Your task to perform on an android device: toggle location history Image 0: 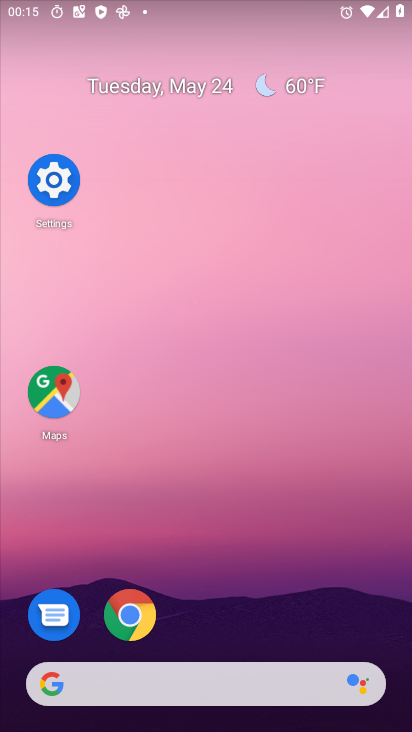
Step 0: click (49, 162)
Your task to perform on an android device: toggle location history Image 1: 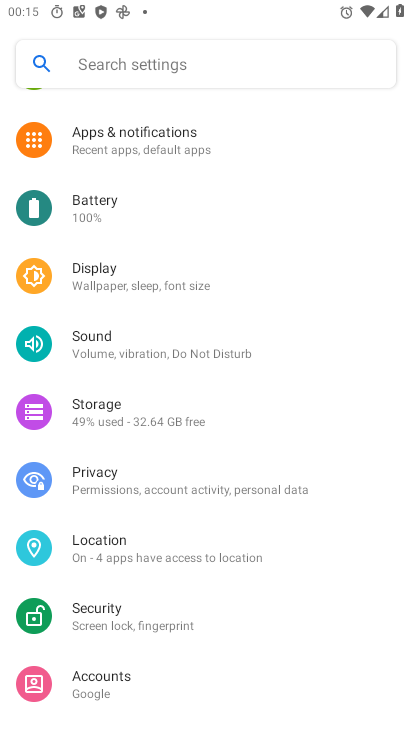
Step 1: click (141, 538)
Your task to perform on an android device: toggle location history Image 2: 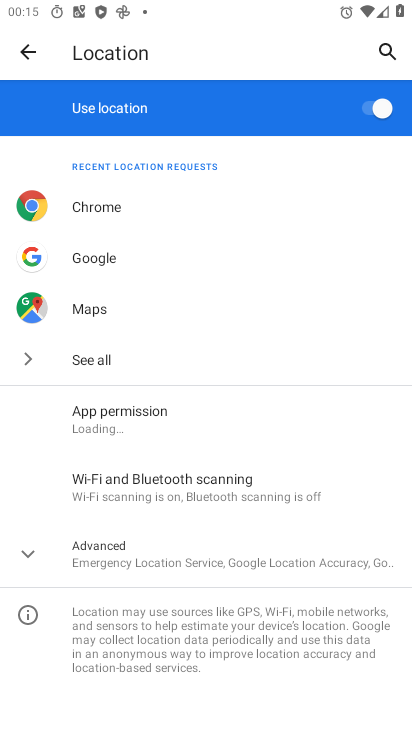
Step 2: click (134, 536)
Your task to perform on an android device: toggle location history Image 3: 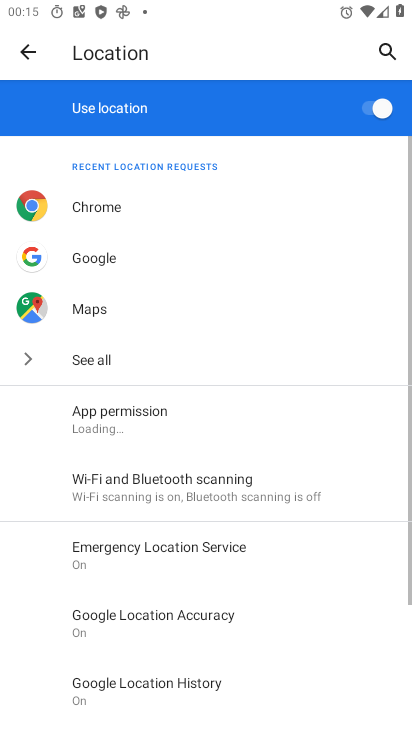
Step 3: drag from (266, 511) to (247, 116)
Your task to perform on an android device: toggle location history Image 4: 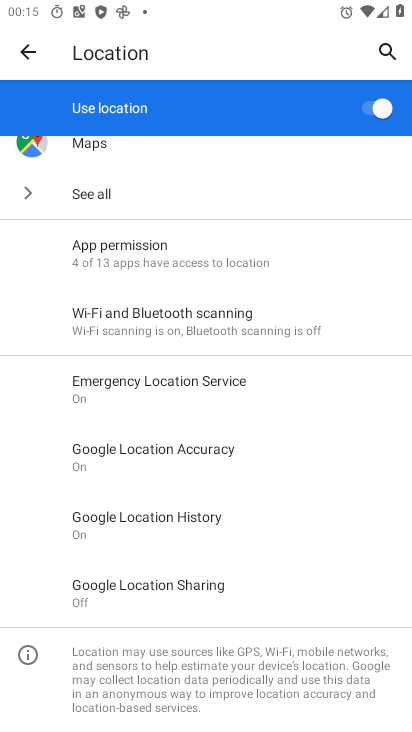
Step 4: click (166, 505)
Your task to perform on an android device: toggle location history Image 5: 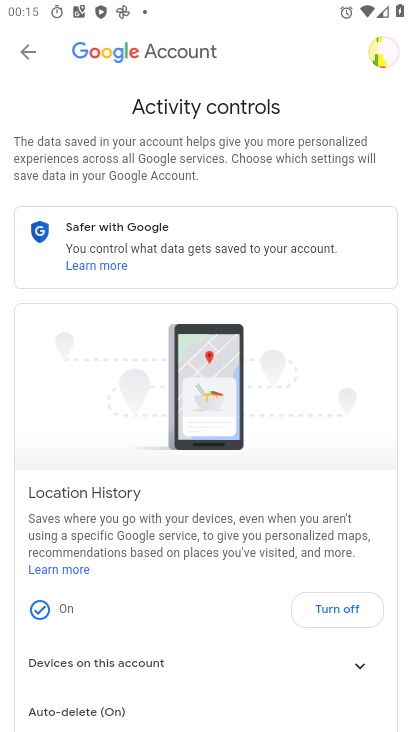
Step 5: drag from (162, 626) to (170, 306)
Your task to perform on an android device: toggle location history Image 6: 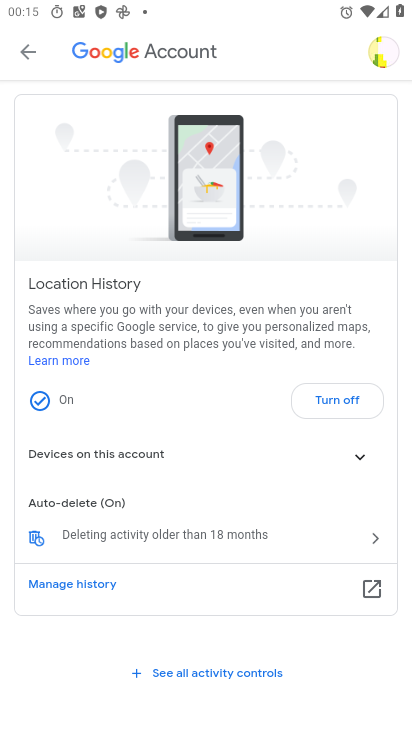
Step 6: click (335, 412)
Your task to perform on an android device: toggle location history Image 7: 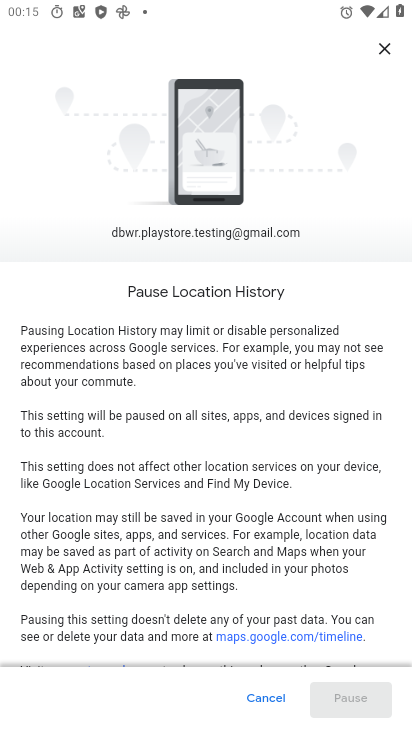
Step 7: drag from (316, 568) to (313, 110)
Your task to perform on an android device: toggle location history Image 8: 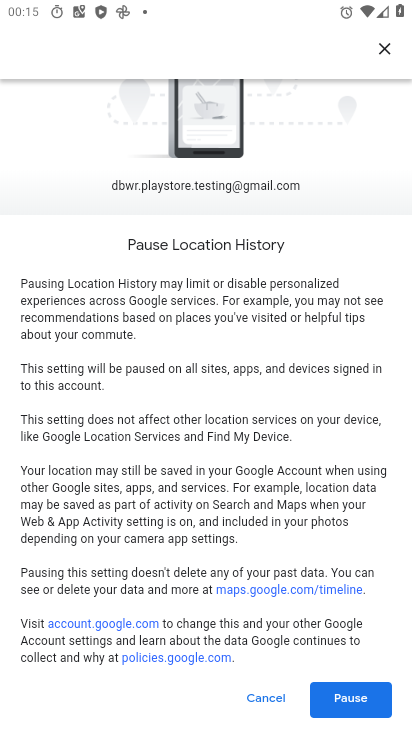
Step 8: click (341, 706)
Your task to perform on an android device: toggle location history Image 9: 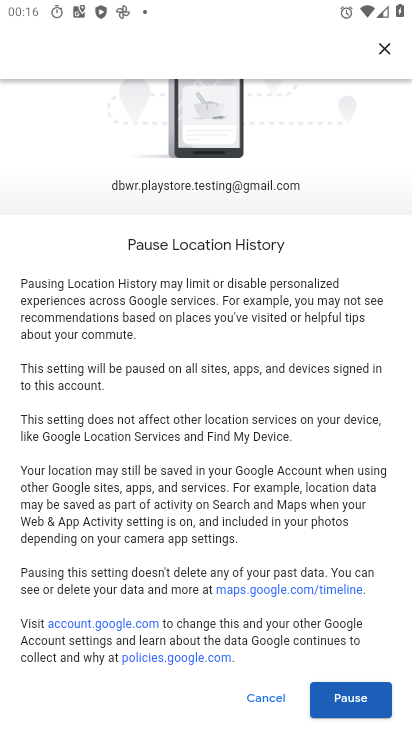
Step 9: click (355, 704)
Your task to perform on an android device: toggle location history Image 10: 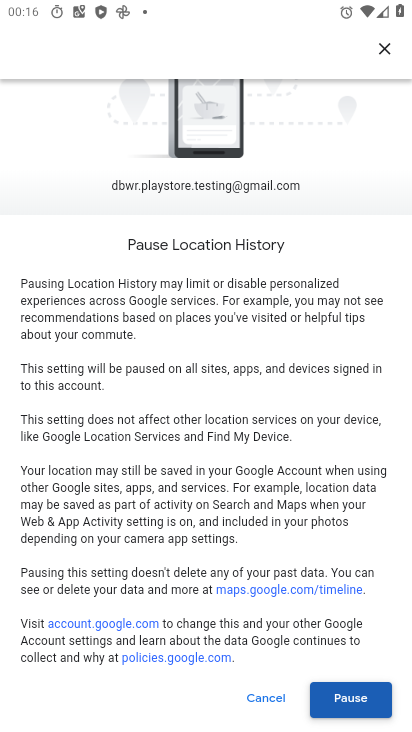
Step 10: drag from (336, 555) to (368, 283)
Your task to perform on an android device: toggle location history Image 11: 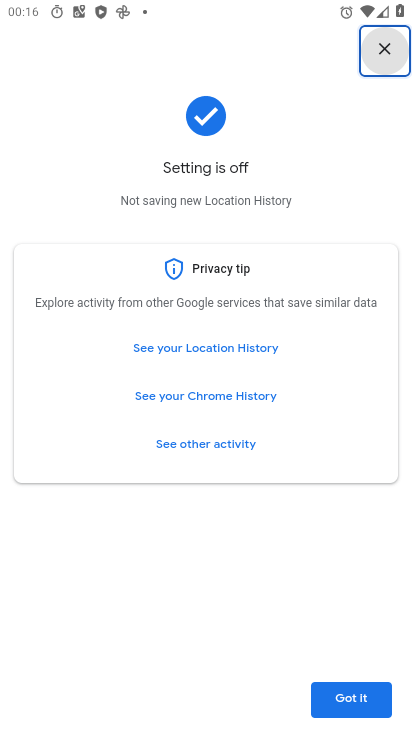
Step 11: click (346, 702)
Your task to perform on an android device: toggle location history Image 12: 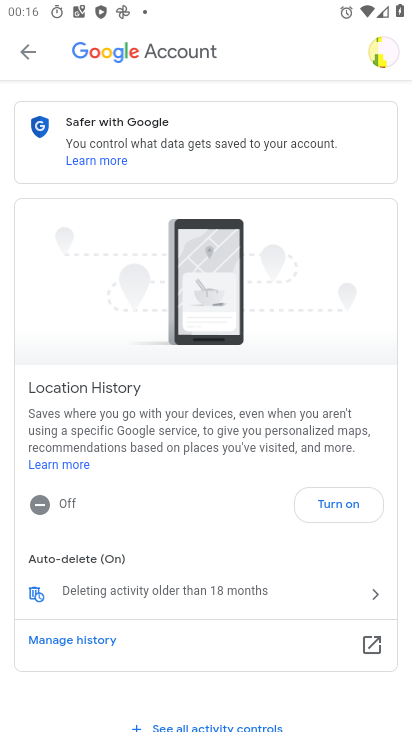
Step 12: task complete